Your task to perform on an android device: Go to calendar. Show me events next week Image 0: 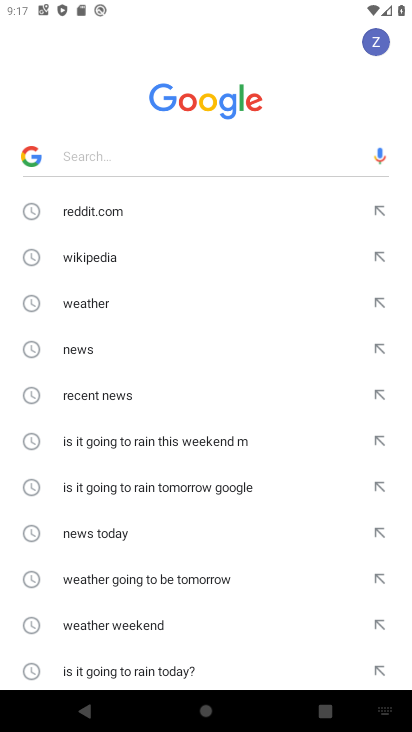
Step 0: press back button
Your task to perform on an android device: Go to calendar. Show me events next week Image 1: 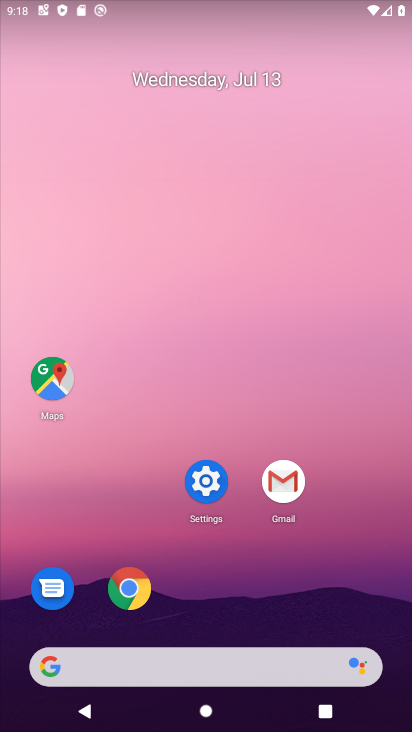
Step 1: drag from (403, 682) to (410, 156)
Your task to perform on an android device: Go to calendar. Show me events next week Image 2: 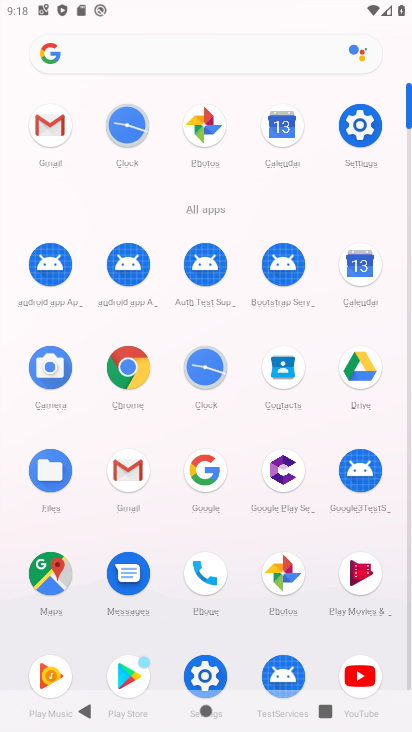
Step 2: click (358, 266)
Your task to perform on an android device: Go to calendar. Show me events next week Image 3: 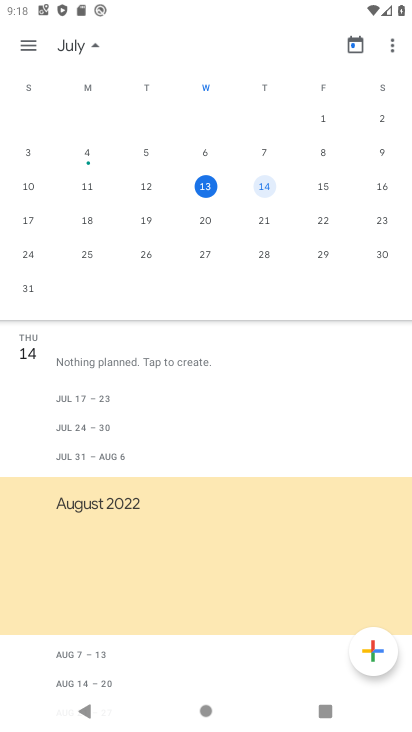
Step 3: click (199, 218)
Your task to perform on an android device: Go to calendar. Show me events next week Image 4: 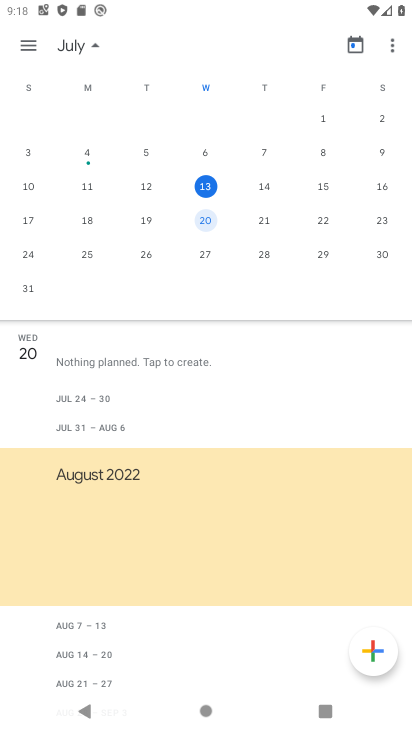
Step 4: click (19, 46)
Your task to perform on an android device: Go to calendar. Show me events next week Image 5: 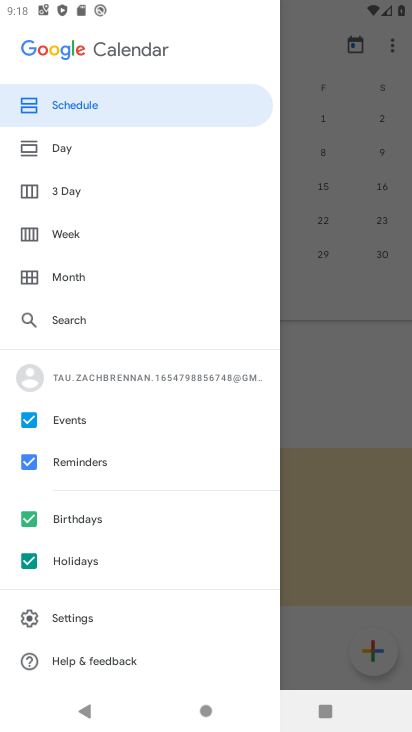
Step 5: click (67, 226)
Your task to perform on an android device: Go to calendar. Show me events next week Image 6: 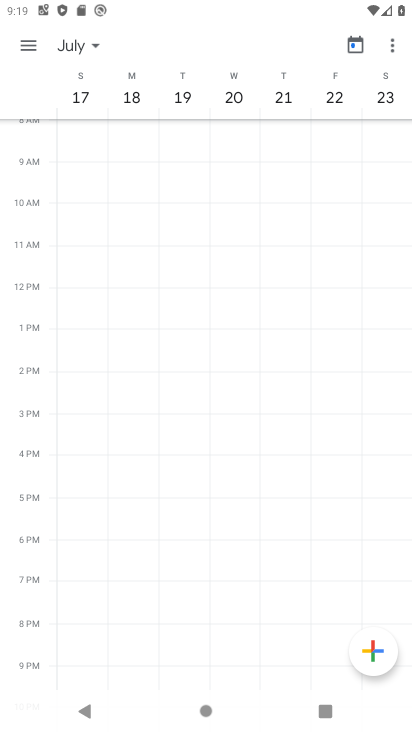
Step 6: task complete